Your task to perform on an android device: open sync settings in chrome Image 0: 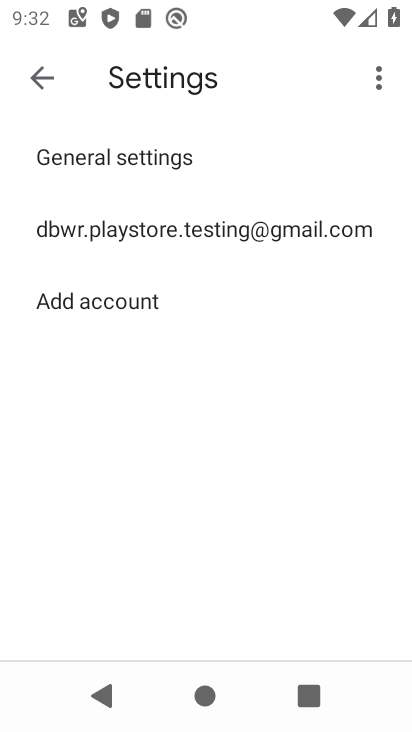
Step 0: press home button
Your task to perform on an android device: open sync settings in chrome Image 1: 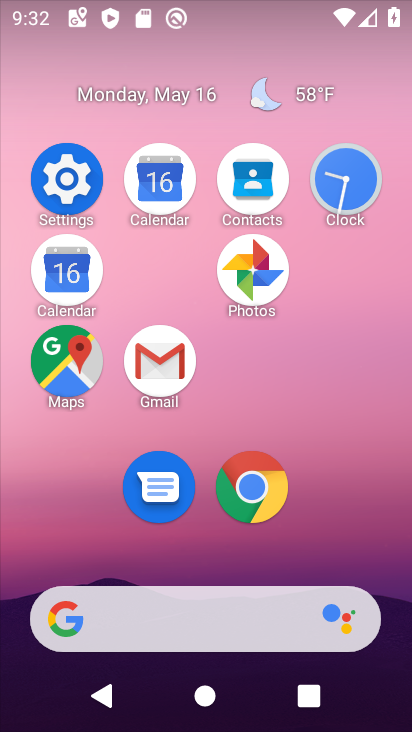
Step 1: click (266, 477)
Your task to perform on an android device: open sync settings in chrome Image 2: 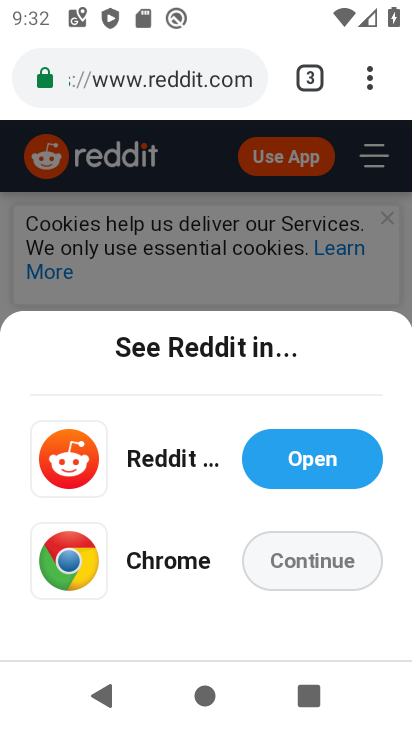
Step 2: click (376, 85)
Your task to perform on an android device: open sync settings in chrome Image 3: 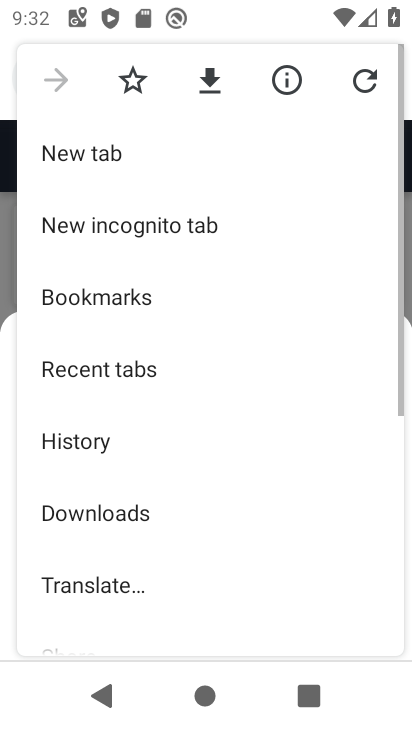
Step 3: drag from (278, 424) to (290, 112)
Your task to perform on an android device: open sync settings in chrome Image 4: 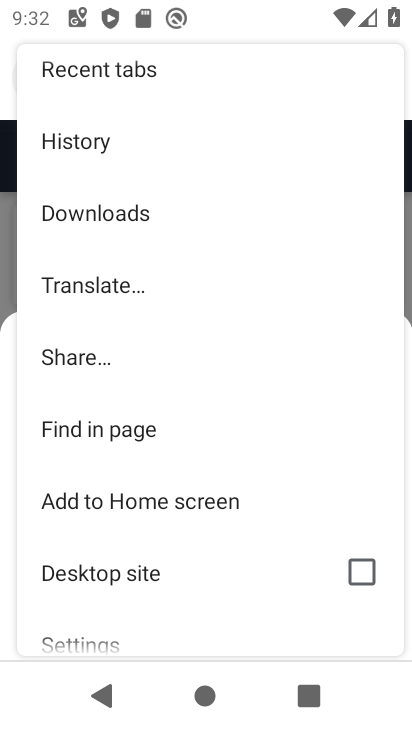
Step 4: click (119, 635)
Your task to perform on an android device: open sync settings in chrome Image 5: 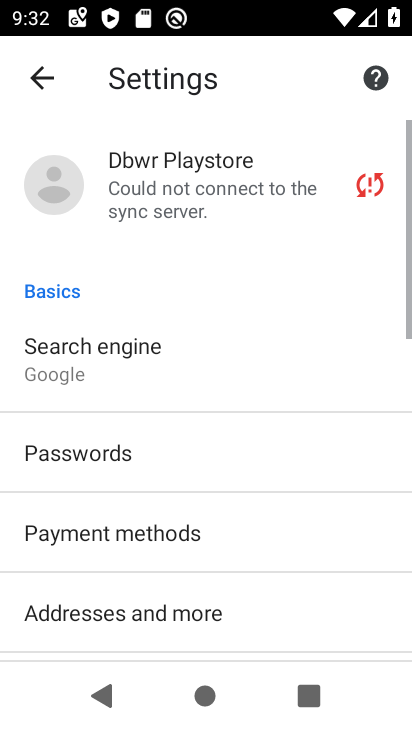
Step 5: drag from (218, 531) to (226, 161)
Your task to perform on an android device: open sync settings in chrome Image 6: 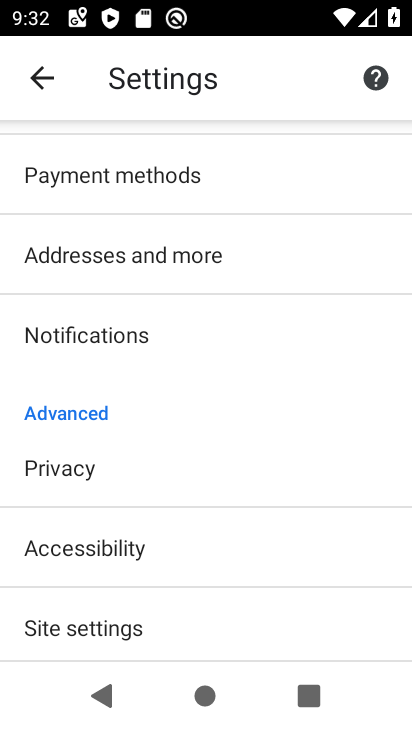
Step 6: drag from (199, 566) to (198, 291)
Your task to perform on an android device: open sync settings in chrome Image 7: 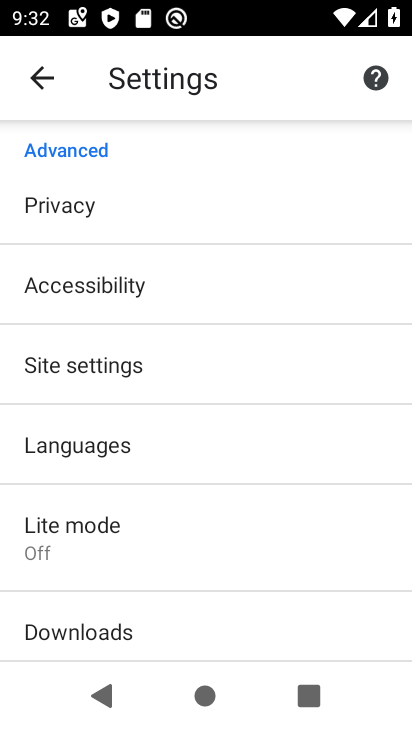
Step 7: click (200, 381)
Your task to perform on an android device: open sync settings in chrome Image 8: 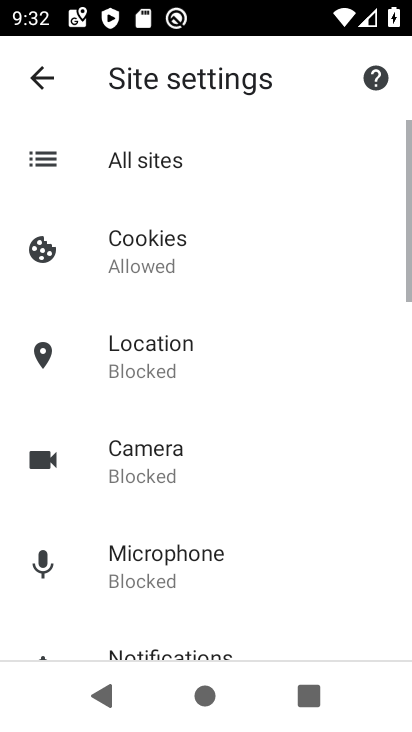
Step 8: drag from (222, 567) to (235, 172)
Your task to perform on an android device: open sync settings in chrome Image 9: 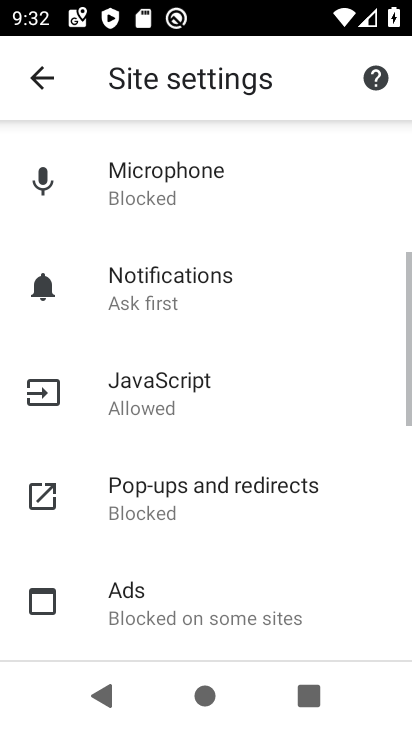
Step 9: drag from (192, 570) to (203, 236)
Your task to perform on an android device: open sync settings in chrome Image 10: 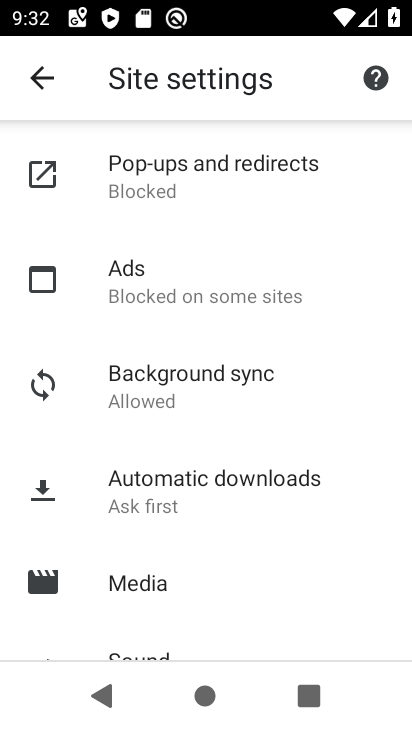
Step 10: click (229, 365)
Your task to perform on an android device: open sync settings in chrome Image 11: 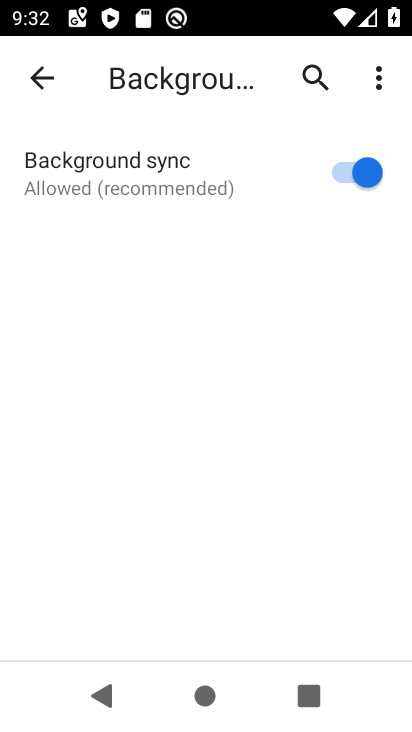
Step 11: task complete